Your task to perform on an android device: Check the weather Image 0: 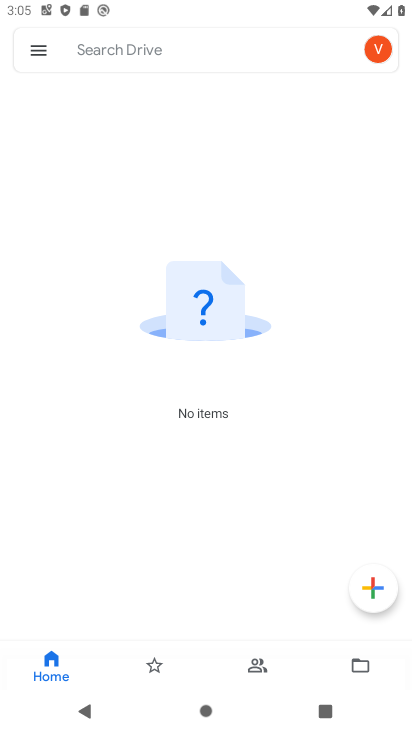
Step 0: press home button
Your task to perform on an android device: Check the weather Image 1: 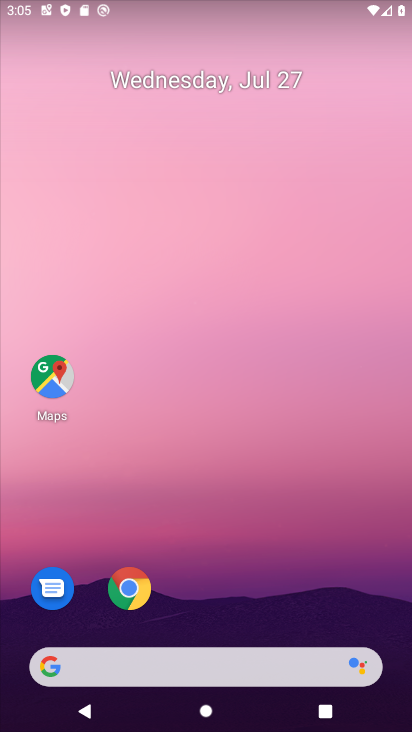
Step 1: click (124, 586)
Your task to perform on an android device: Check the weather Image 2: 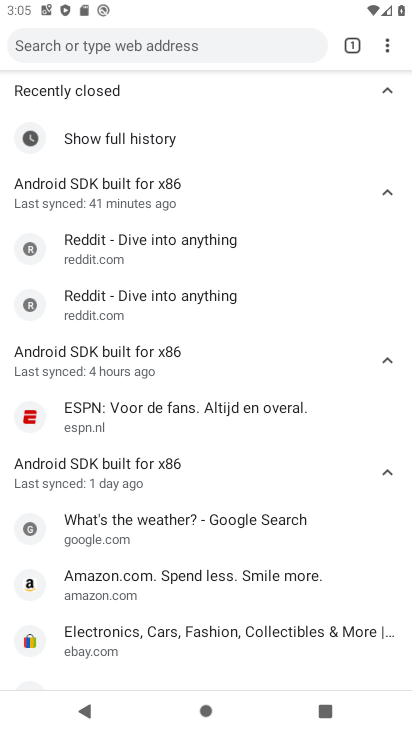
Step 2: click (201, 50)
Your task to perform on an android device: Check the weather Image 3: 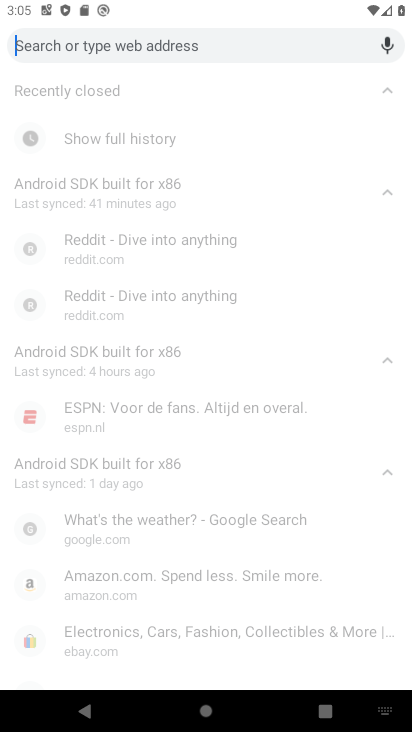
Step 3: click (256, 39)
Your task to perform on an android device: Check the weather Image 4: 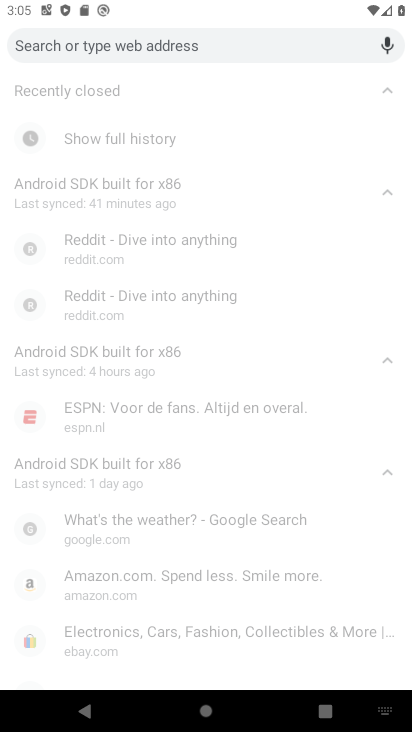
Step 4: type "Check the weather"
Your task to perform on an android device: Check the weather Image 5: 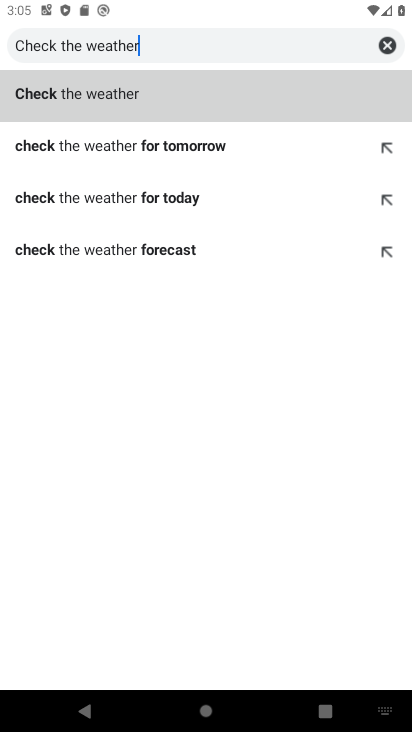
Step 5: click (113, 98)
Your task to perform on an android device: Check the weather Image 6: 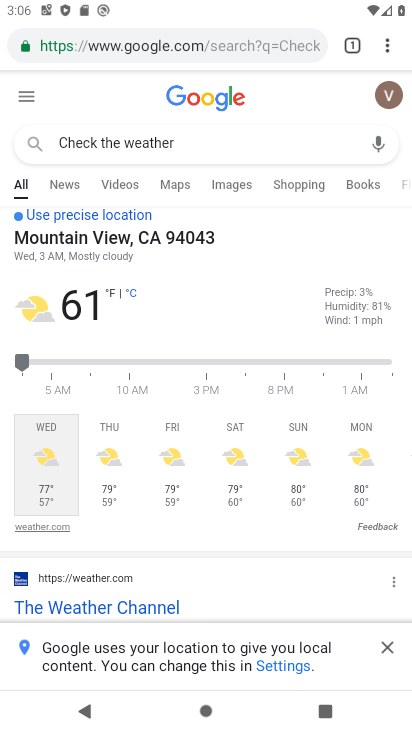
Step 6: task complete